Your task to perform on an android device: Go to display settings Image 0: 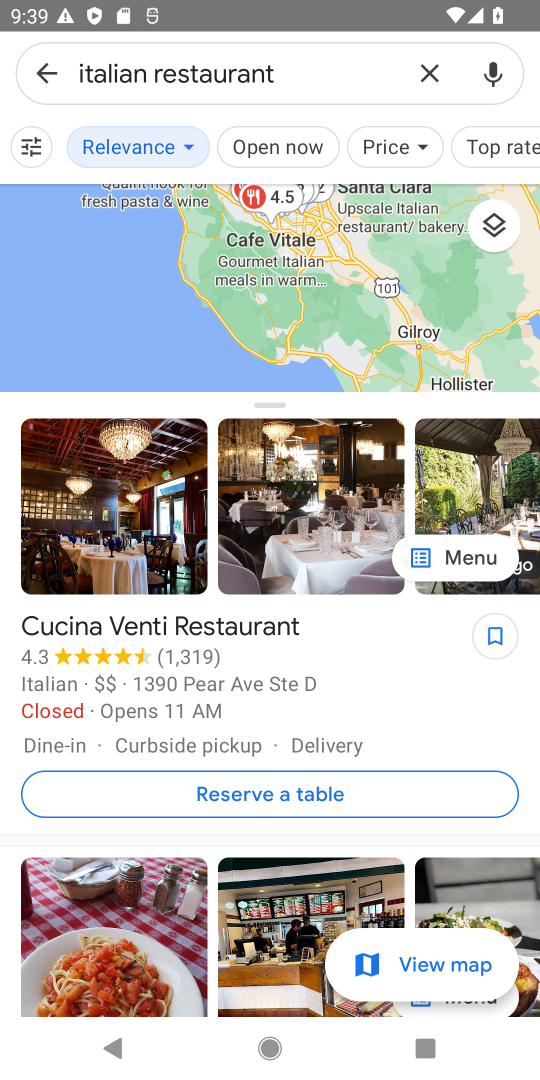
Step 0: press home button
Your task to perform on an android device: Go to display settings Image 1: 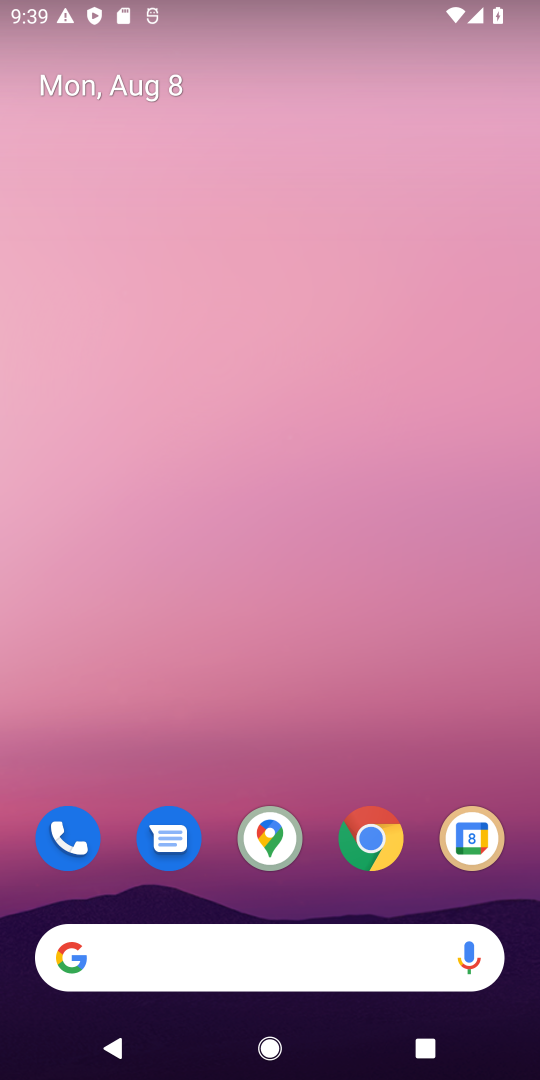
Step 1: drag from (335, 674) to (369, 242)
Your task to perform on an android device: Go to display settings Image 2: 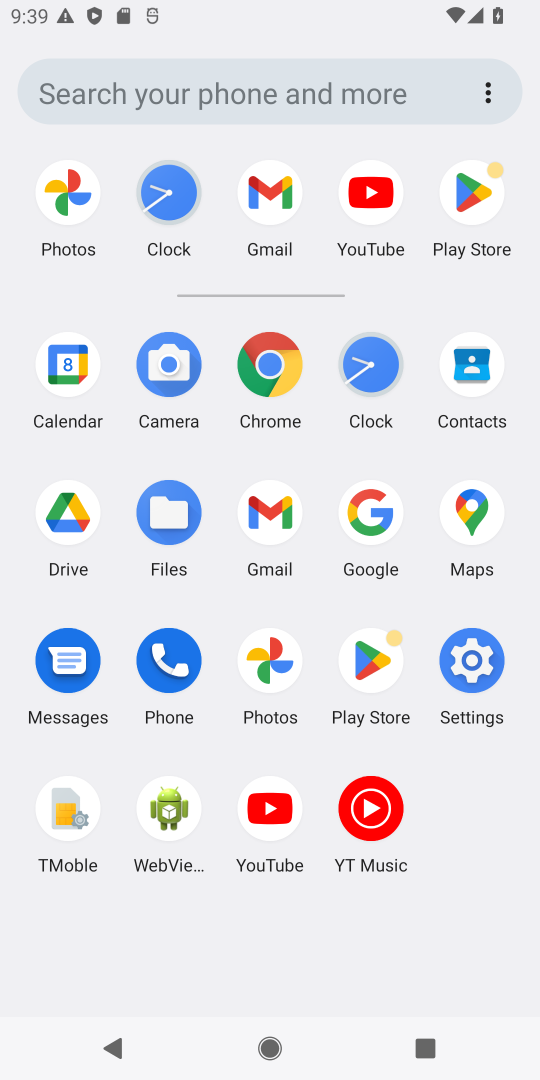
Step 2: click (448, 681)
Your task to perform on an android device: Go to display settings Image 3: 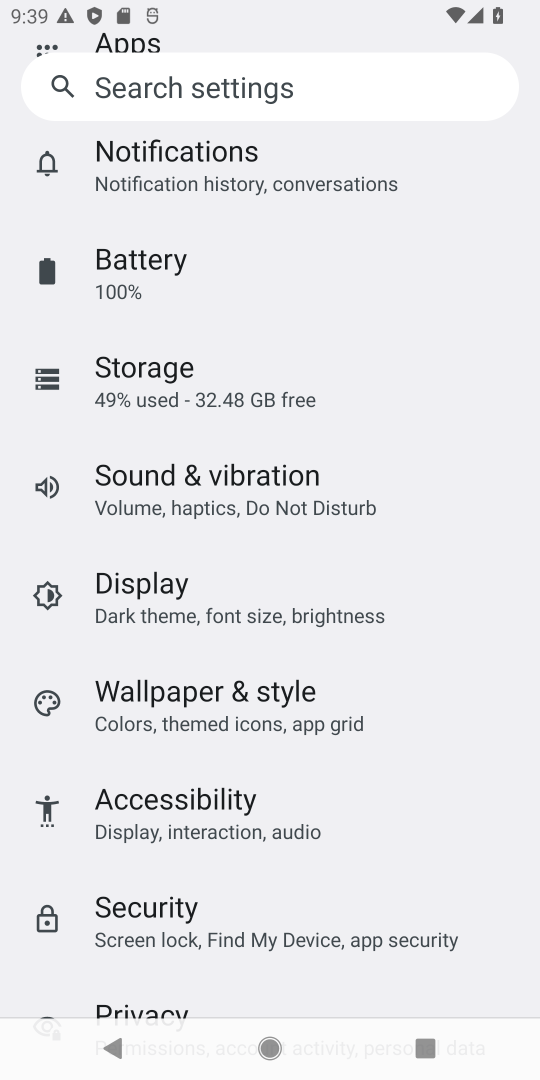
Step 3: task complete